Your task to perform on an android device: Open Amazon Image 0: 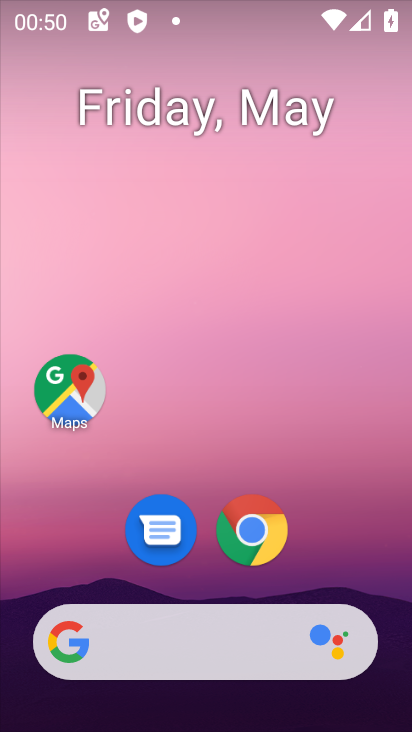
Step 0: click (251, 528)
Your task to perform on an android device: Open Amazon Image 1: 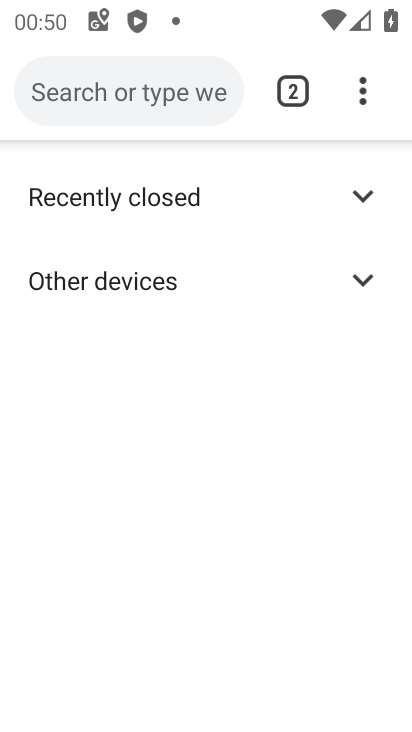
Step 1: click (173, 86)
Your task to perform on an android device: Open Amazon Image 2: 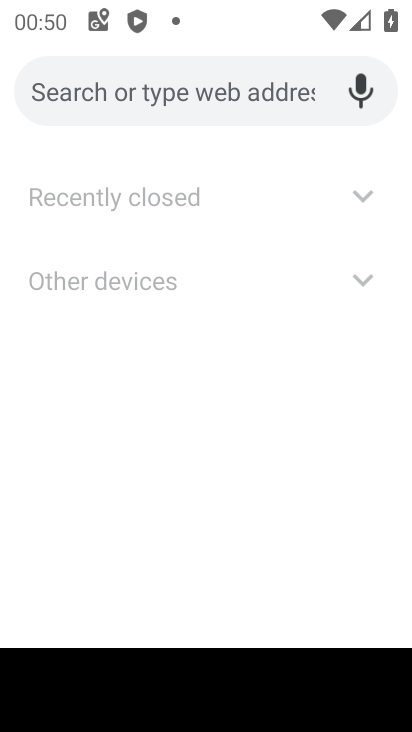
Step 2: type "Amazon"
Your task to perform on an android device: Open Amazon Image 3: 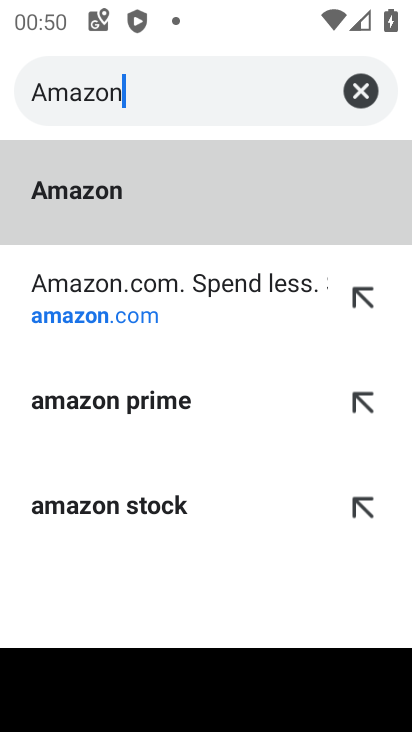
Step 3: click (103, 195)
Your task to perform on an android device: Open Amazon Image 4: 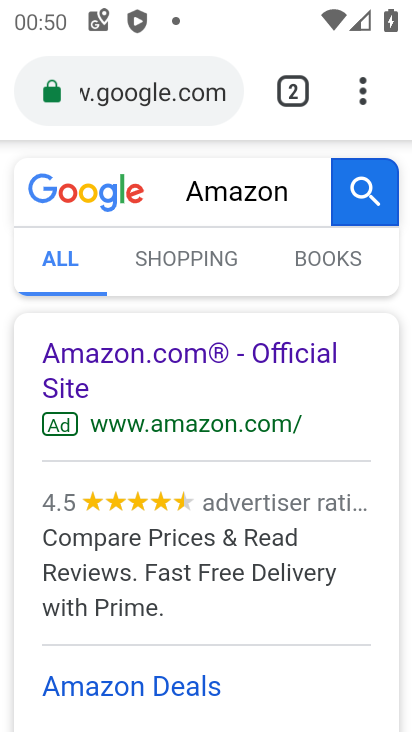
Step 4: click (71, 349)
Your task to perform on an android device: Open Amazon Image 5: 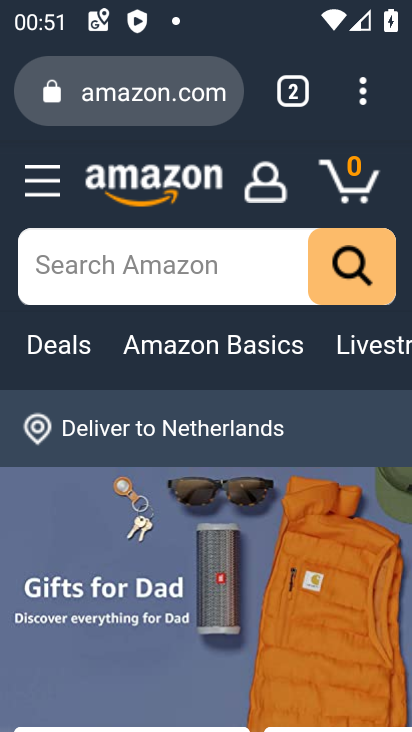
Step 5: task complete